Your task to perform on an android device: allow notifications from all sites in the chrome app Image 0: 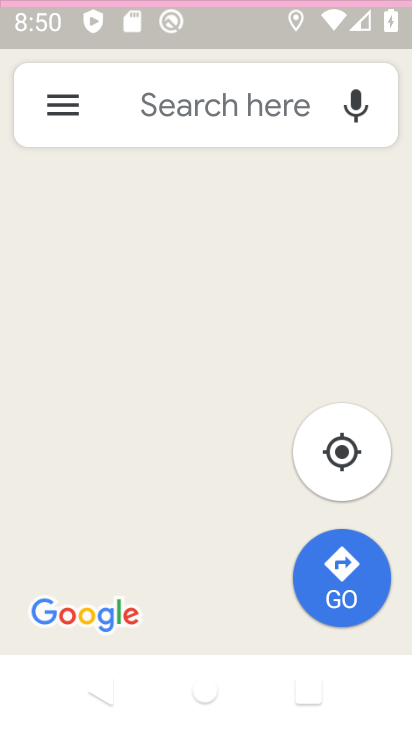
Step 0: press home button
Your task to perform on an android device: allow notifications from all sites in the chrome app Image 1: 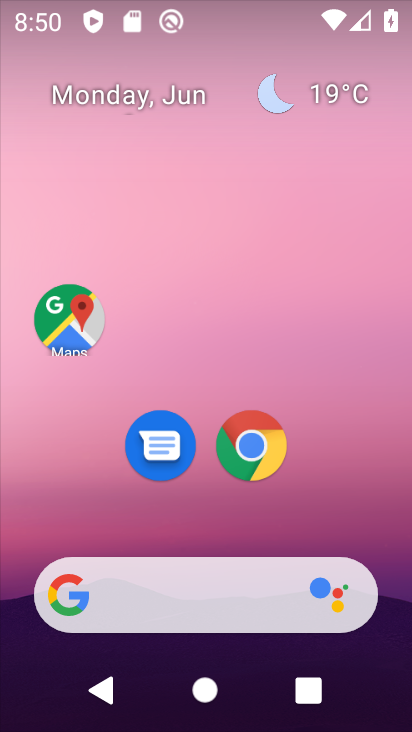
Step 1: click (248, 440)
Your task to perform on an android device: allow notifications from all sites in the chrome app Image 2: 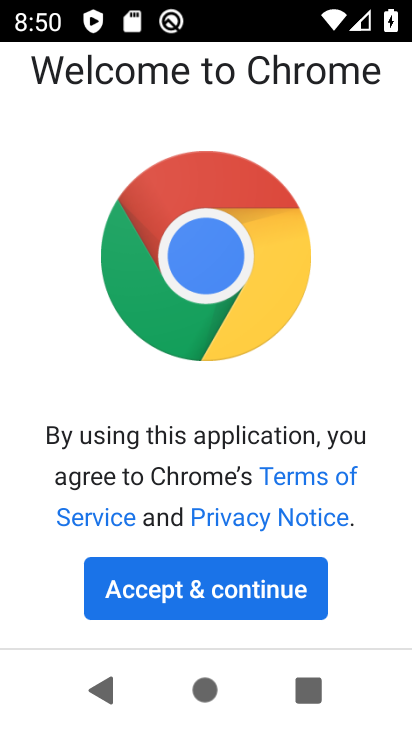
Step 2: click (196, 582)
Your task to perform on an android device: allow notifications from all sites in the chrome app Image 3: 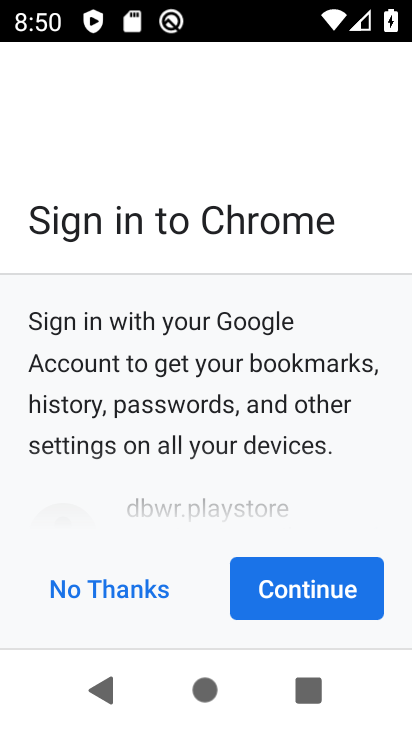
Step 3: click (313, 585)
Your task to perform on an android device: allow notifications from all sites in the chrome app Image 4: 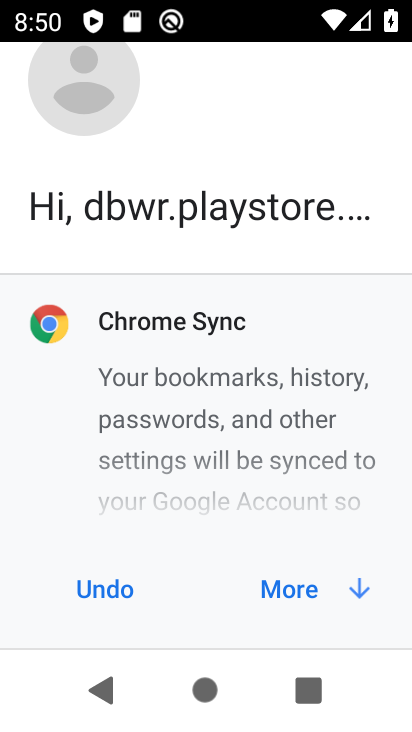
Step 4: click (300, 587)
Your task to perform on an android device: allow notifications from all sites in the chrome app Image 5: 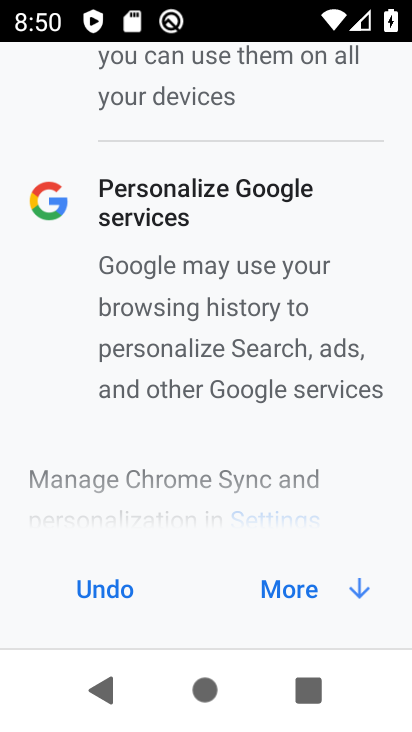
Step 5: click (300, 587)
Your task to perform on an android device: allow notifications from all sites in the chrome app Image 6: 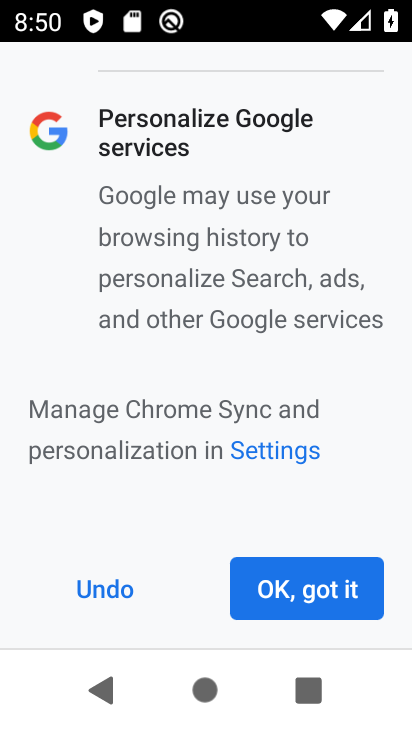
Step 6: click (300, 587)
Your task to perform on an android device: allow notifications from all sites in the chrome app Image 7: 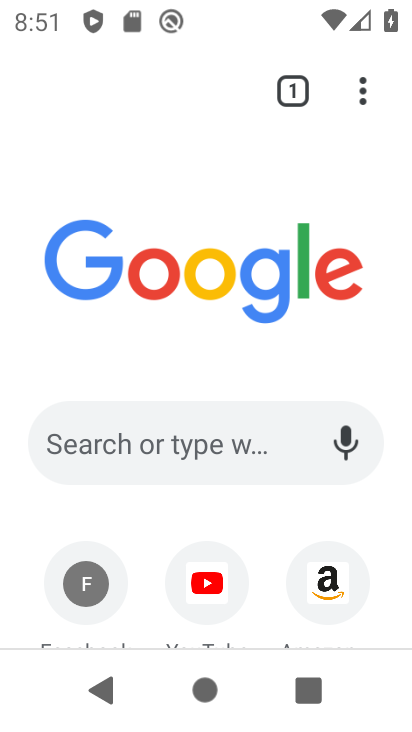
Step 7: click (358, 86)
Your task to perform on an android device: allow notifications from all sites in the chrome app Image 8: 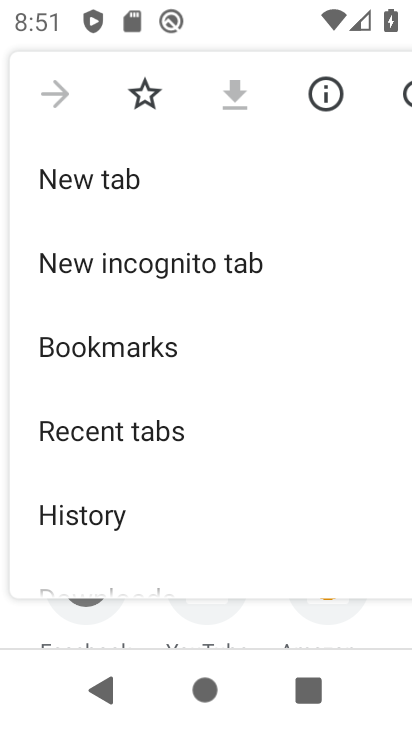
Step 8: drag from (195, 529) to (228, 20)
Your task to perform on an android device: allow notifications from all sites in the chrome app Image 9: 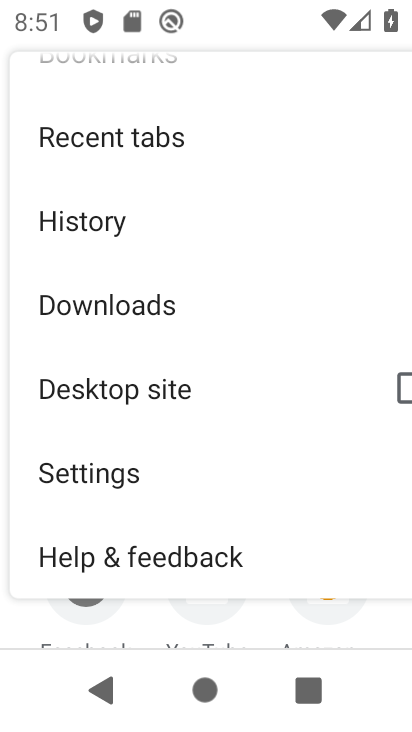
Step 9: click (156, 467)
Your task to perform on an android device: allow notifications from all sites in the chrome app Image 10: 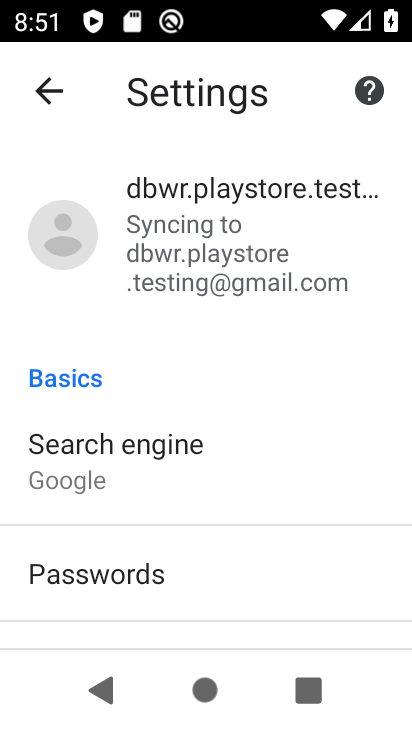
Step 10: drag from (223, 601) to (243, 50)
Your task to perform on an android device: allow notifications from all sites in the chrome app Image 11: 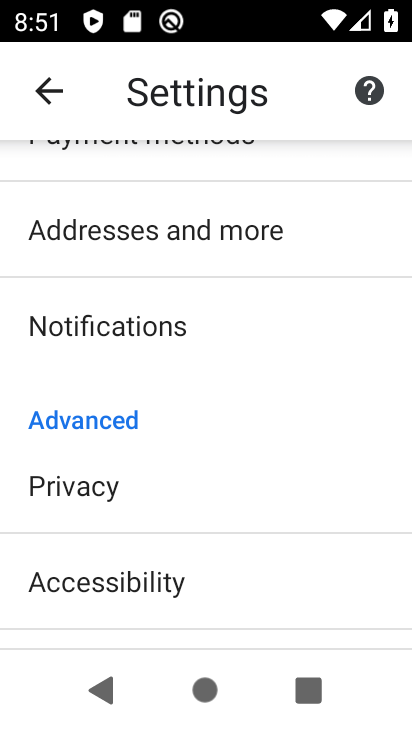
Step 11: click (230, 314)
Your task to perform on an android device: allow notifications from all sites in the chrome app Image 12: 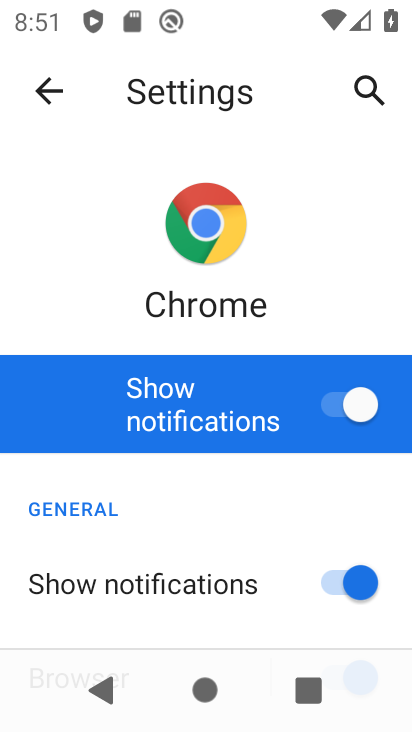
Step 12: task complete